Your task to perform on an android device: turn off javascript in the chrome app Image 0: 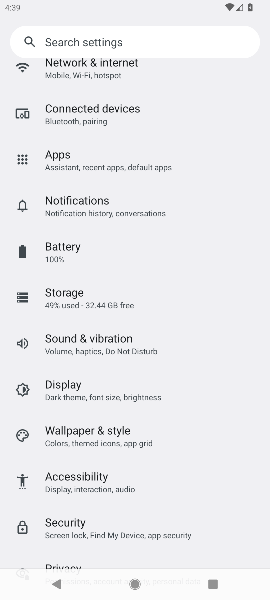
Step 0: press home button
Your task to perform on an android device: turn off javascript in the chrome app Image 1: 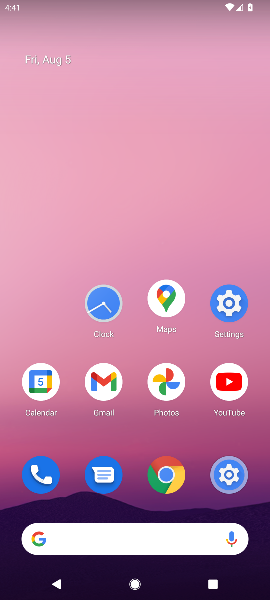
Step 1: click (166, 485)
Your task to perform on an android device: turn off javascript in the chrome app Image 2: 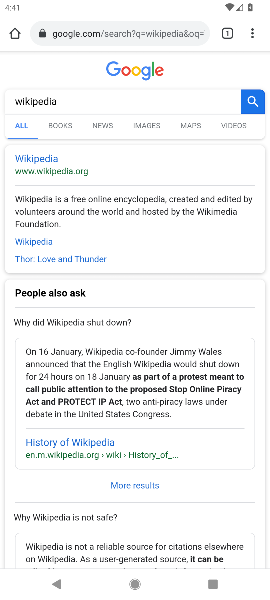
Step 2: click (249, 29)
Your task to perform on an android device: turn off javascript in the chrome app Image 3: 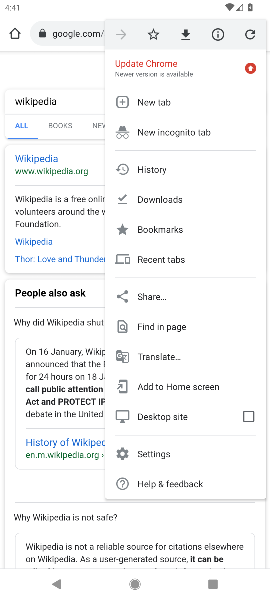
Step 3: click (157, 452)
Your task to perform on an android device: turn off javascript in the chrome app Image 4: 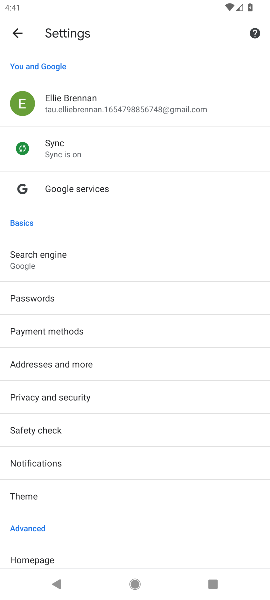
Step 4: drag from (110, 519) to (103, 276)
Your task to perform on an android device: turn off javascript in the chrome app Image 5: 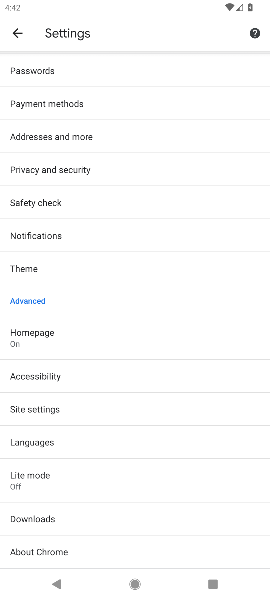
Step 5: click (43, 403)
Your task to perform on an android device: turn off javascript in the chrome app Image 6: 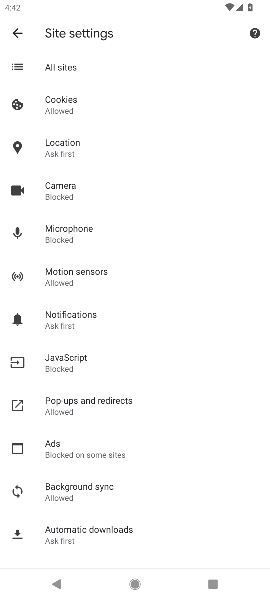
Step 6: click (62, 363)
Your task to perform on an android device: turn off javascript in the chrome app Image 7: 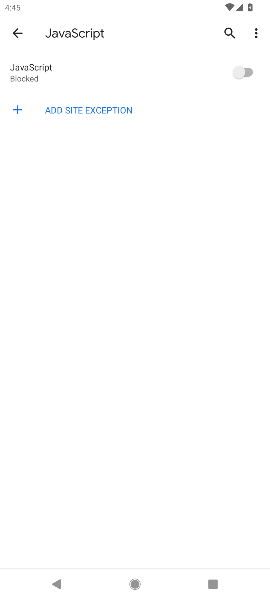
Step 7: task complete